Your task to perform on an android device: change the clock display to show seconds Image 0: 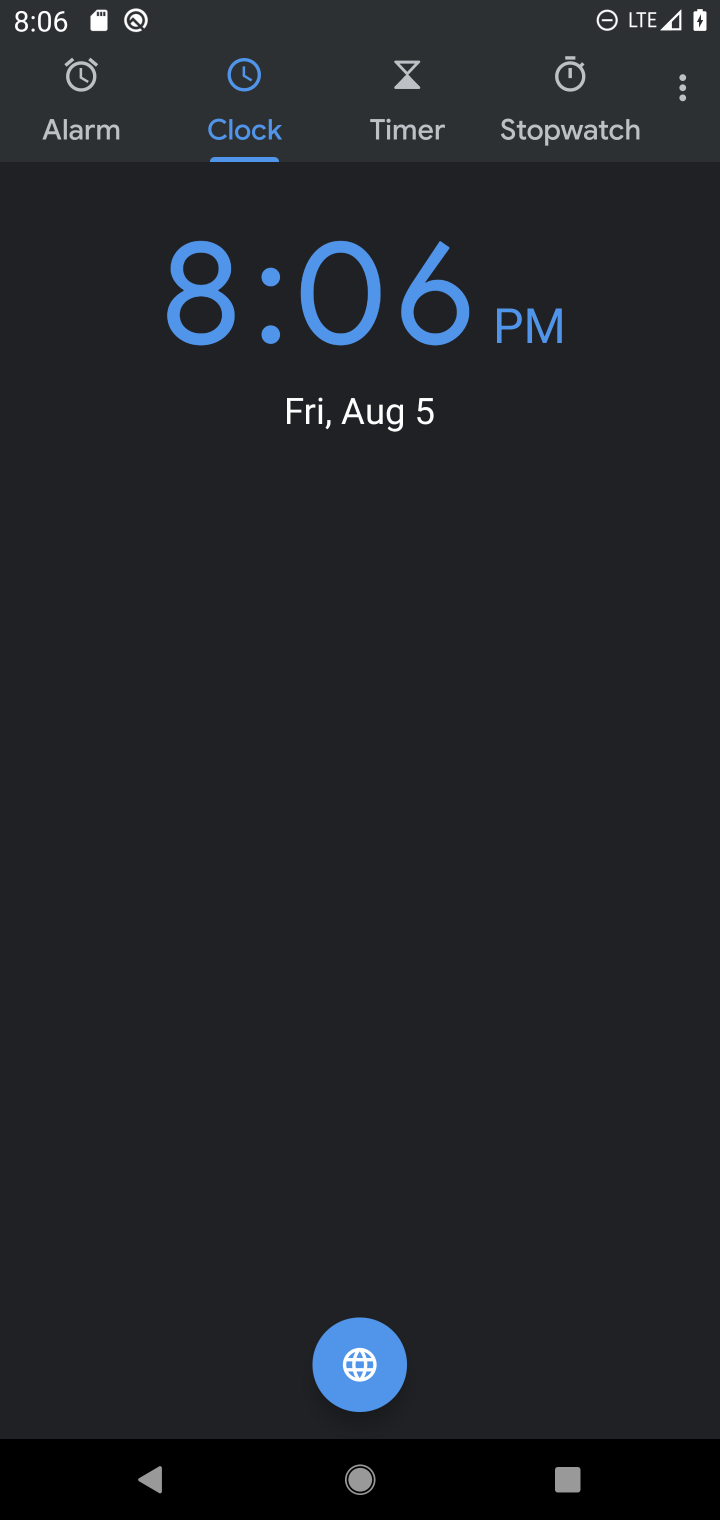
Step 0: press home button
Your task to perform on an android device: change the clock display to show seconds Image 1: 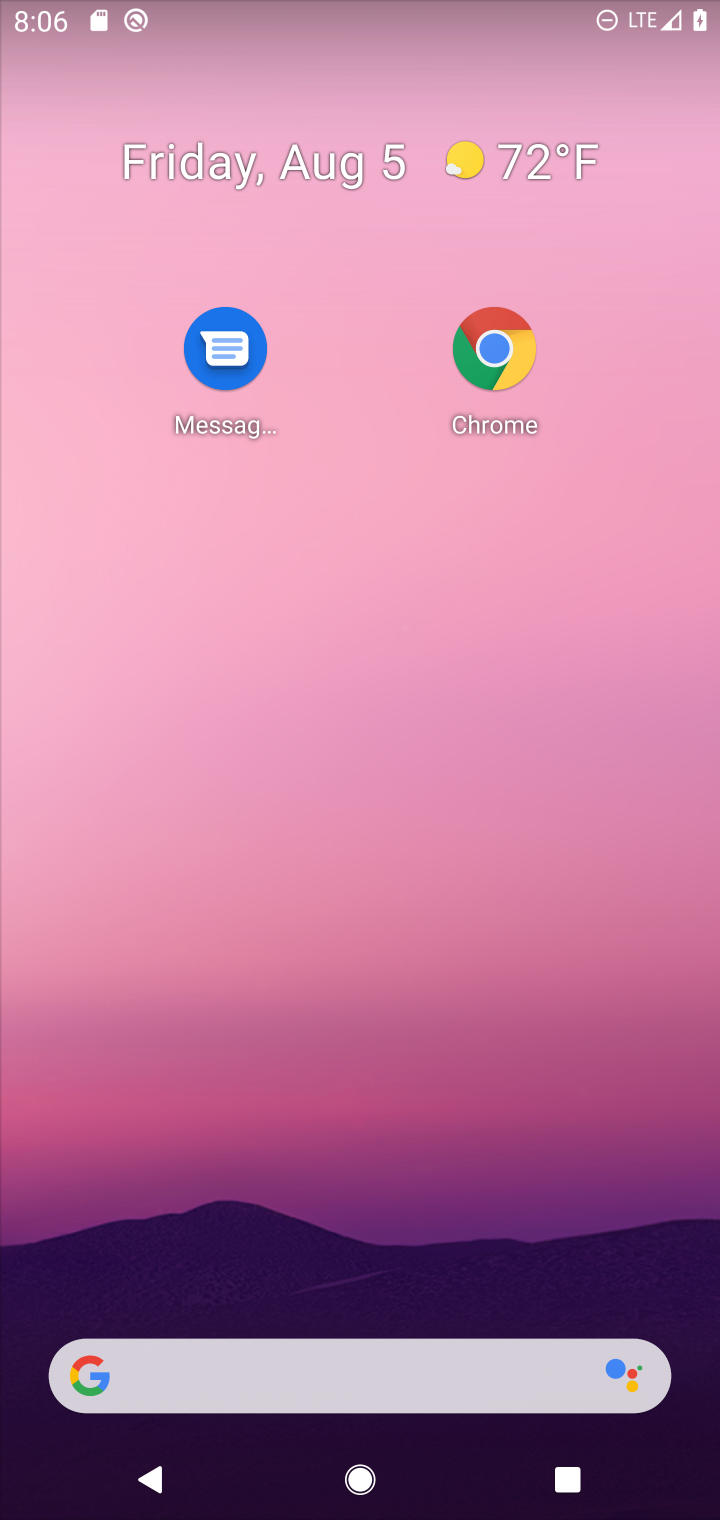
Step 1: drag from (405, 1419) to (511, 220)
Your task to perform on an android device: change the clock display to show seconds Image 2: 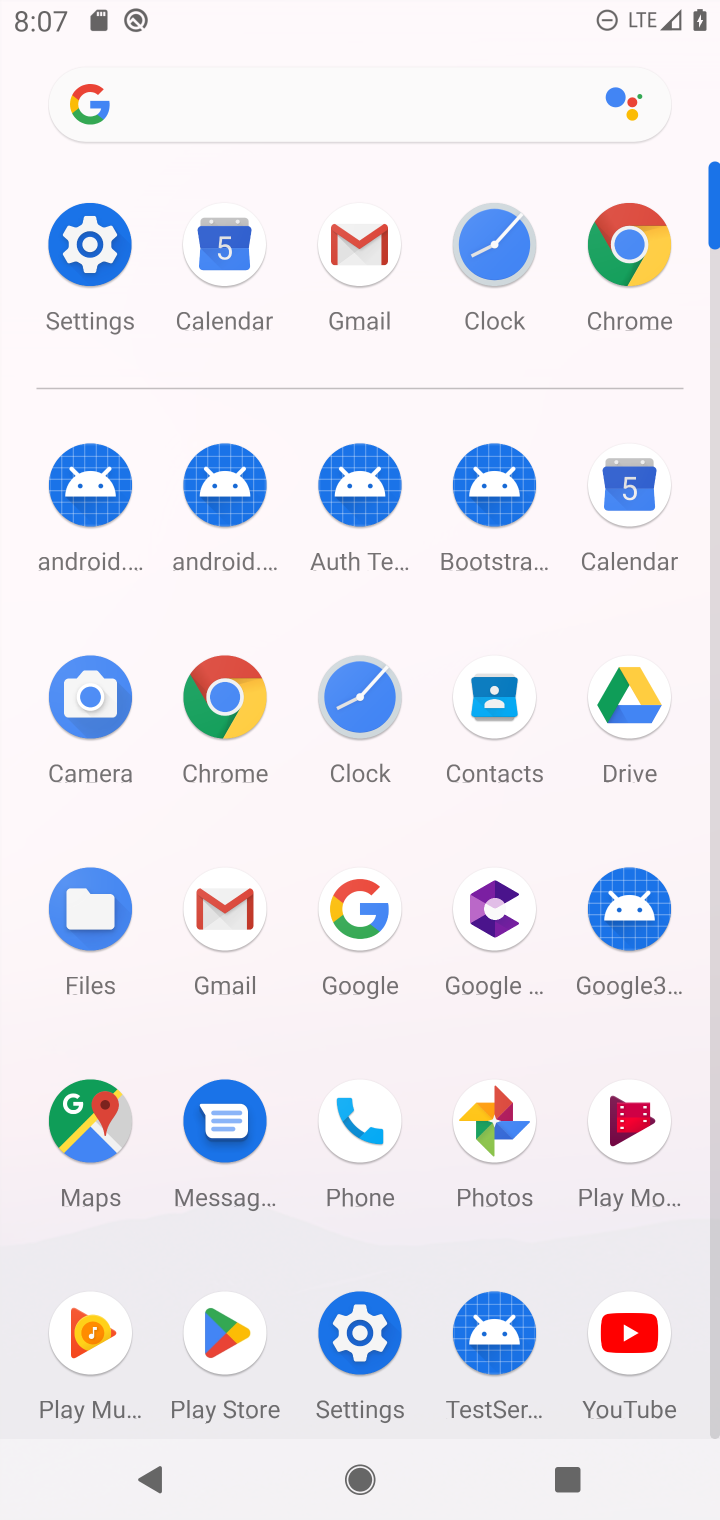
Step 2: click (488, 286)
Your task to perform on an android device: change the clock display to show seconds Image 3: 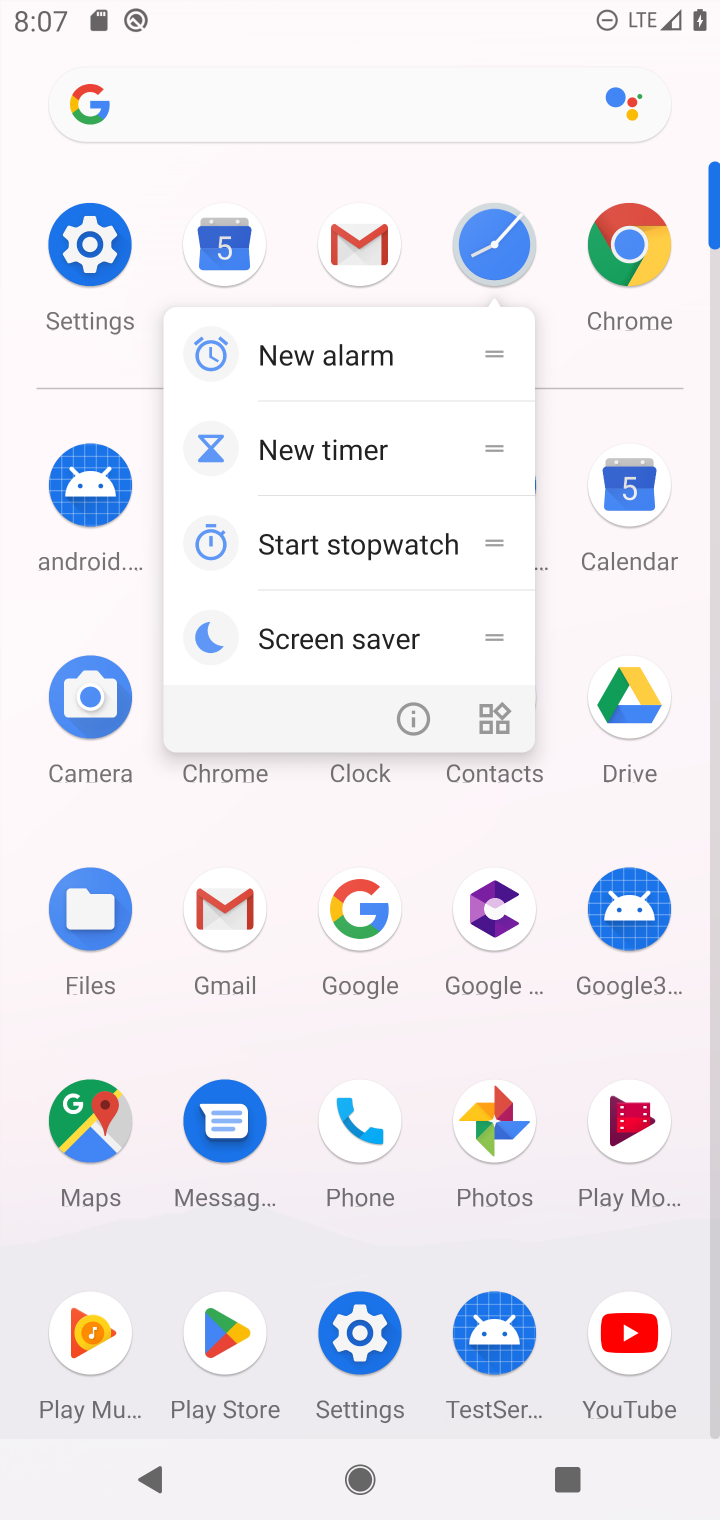
Step 3: click (495, 267)
Your task to perform on an android device: change the clock display to show seconds Image 4: 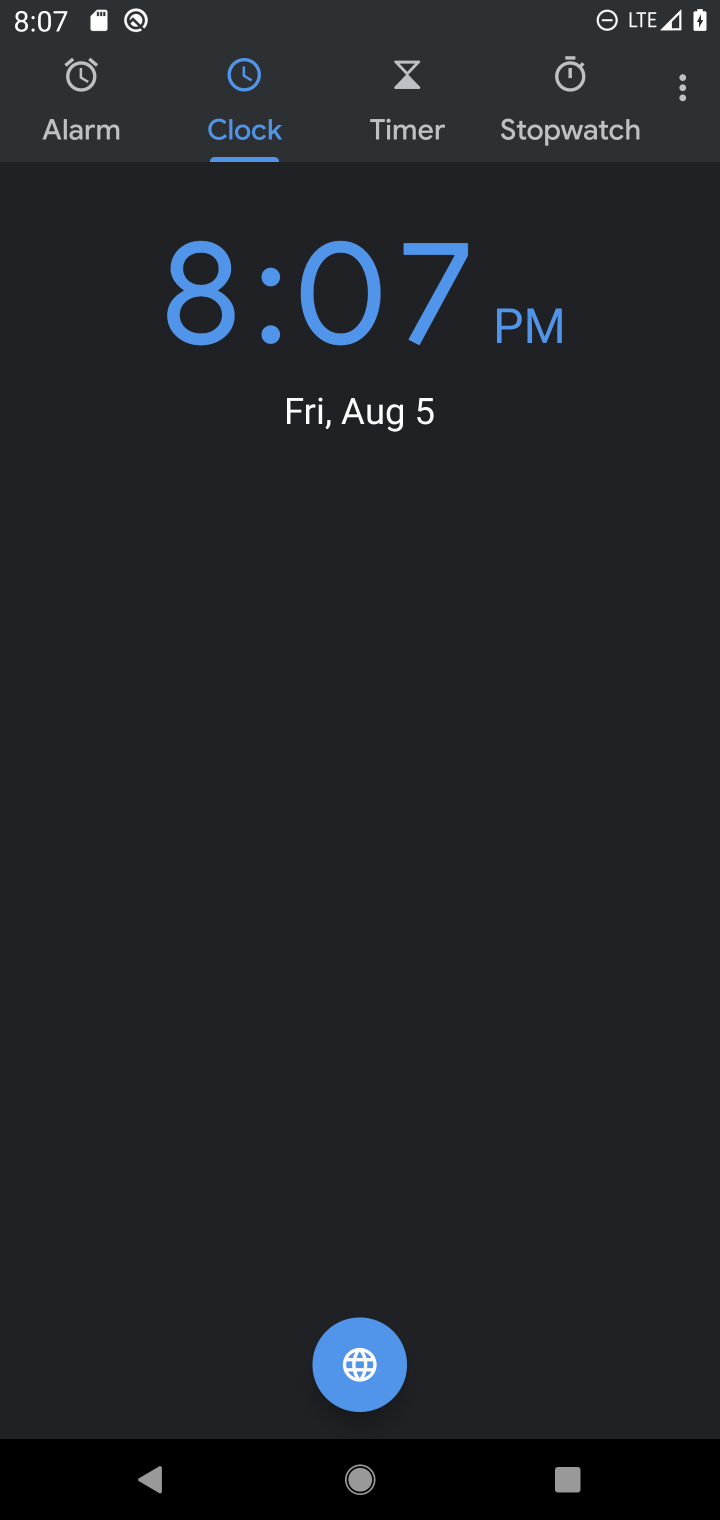
Step 4: click (678, 88)
Your task to perform on an android device: change the clock display to show seconds Image 5: 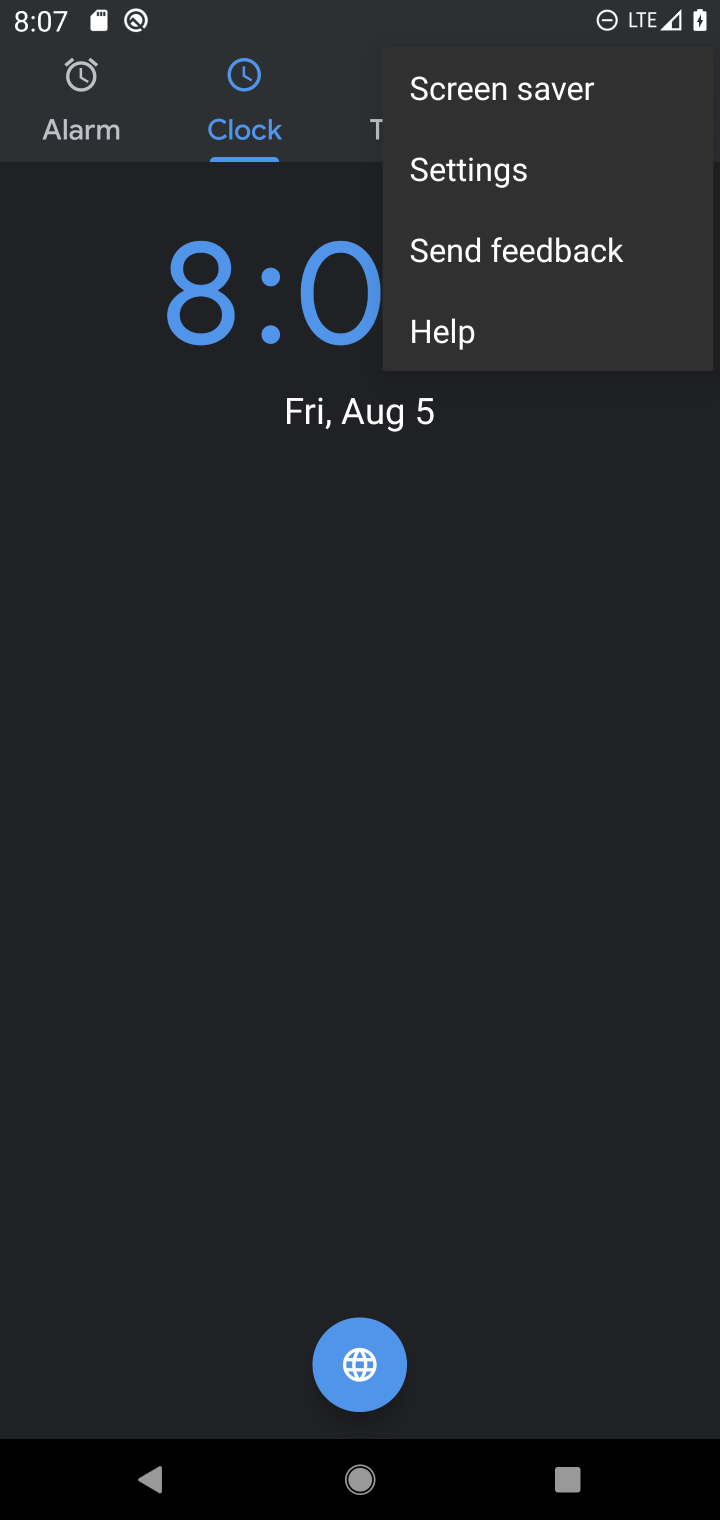
Step 5: click (496, 179)
Your task to perform on an android device: change the clock display to show seconds Image 6: 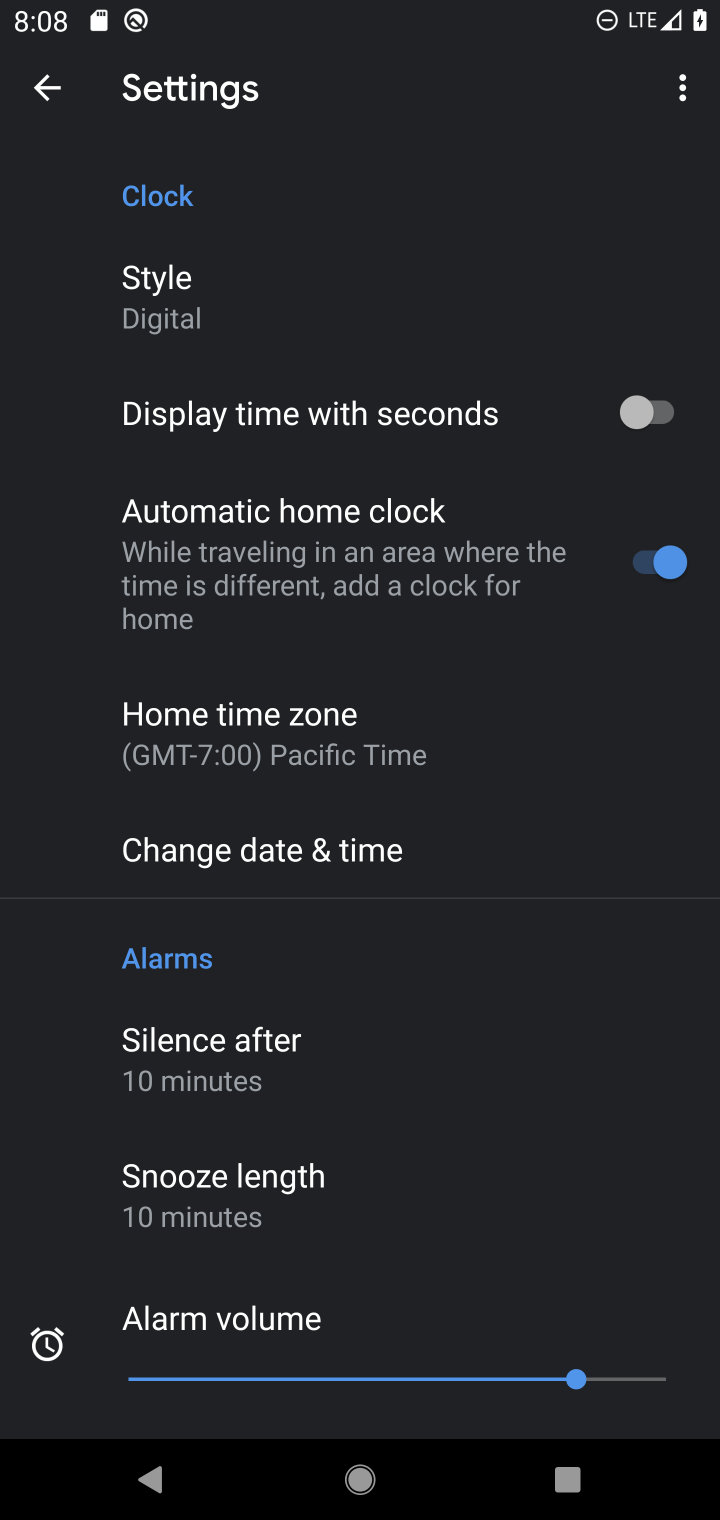
Step 6: task complete